Your task to perform on an android device: all mails in gmail Image 0: 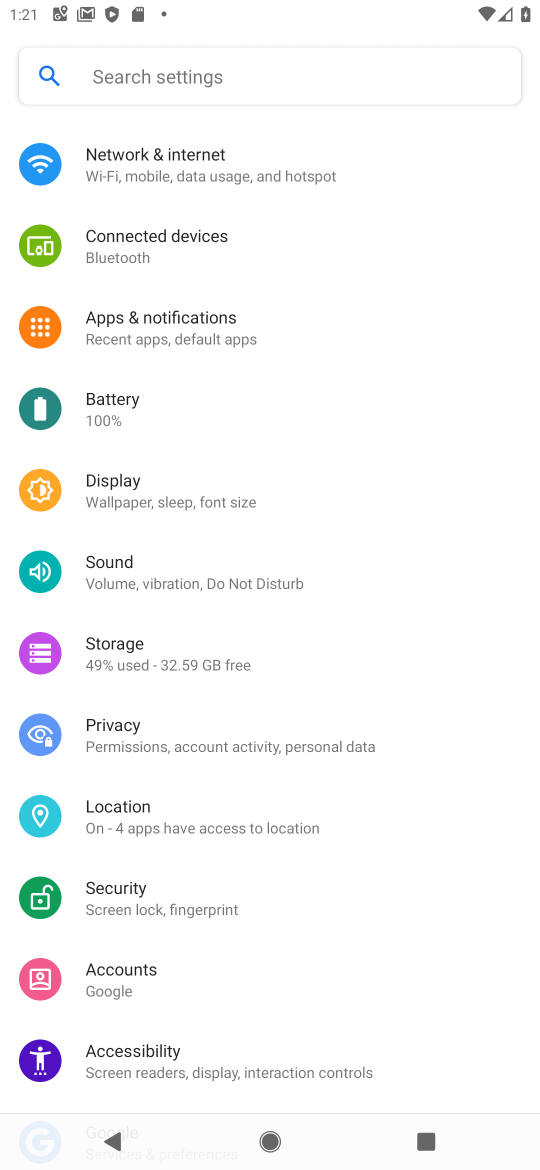
Step 0: drag from (223, 923) to (285, 97)
Your task to perform on an android device: all mails in gmail Image 1: 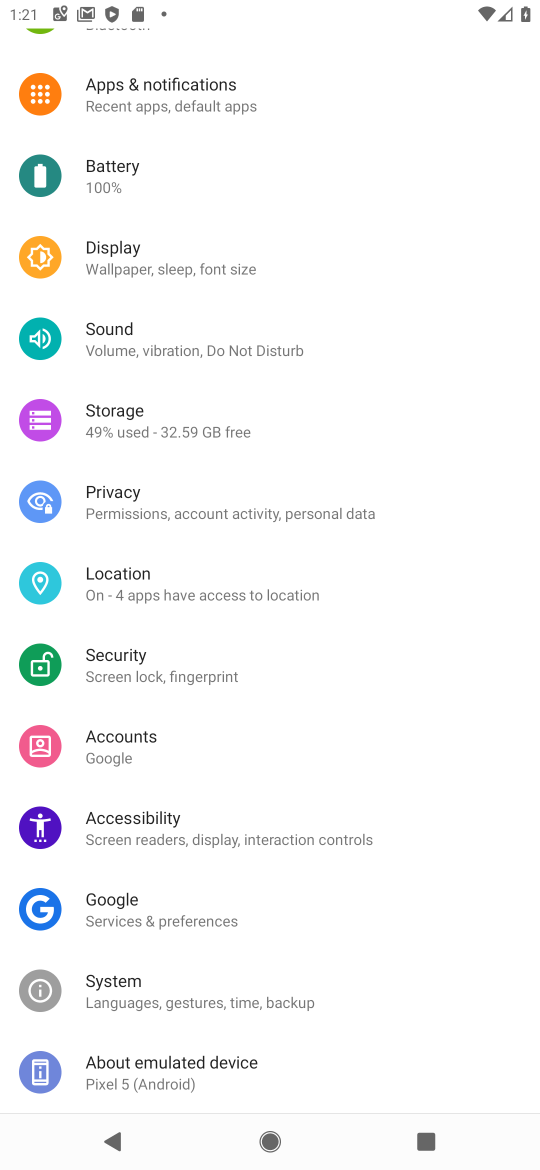
Step 1: press home button
Your task to perform on an android device: all mails in gmail Image 2: 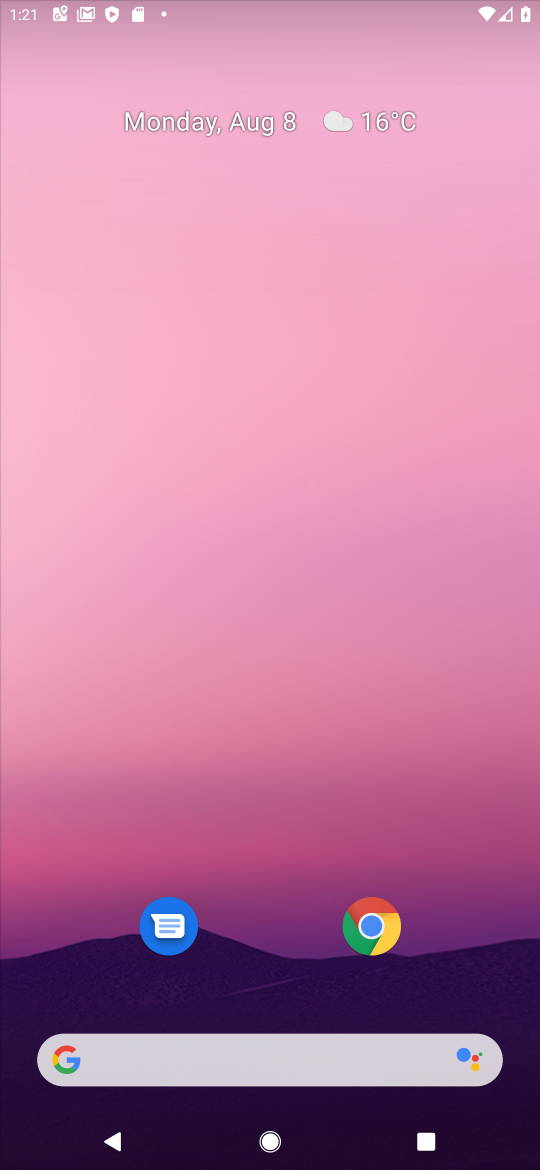
Step 2: drag from (195, 967) to (259, 47)
Your task to perform on an android device: all mails in gmail Image 3: 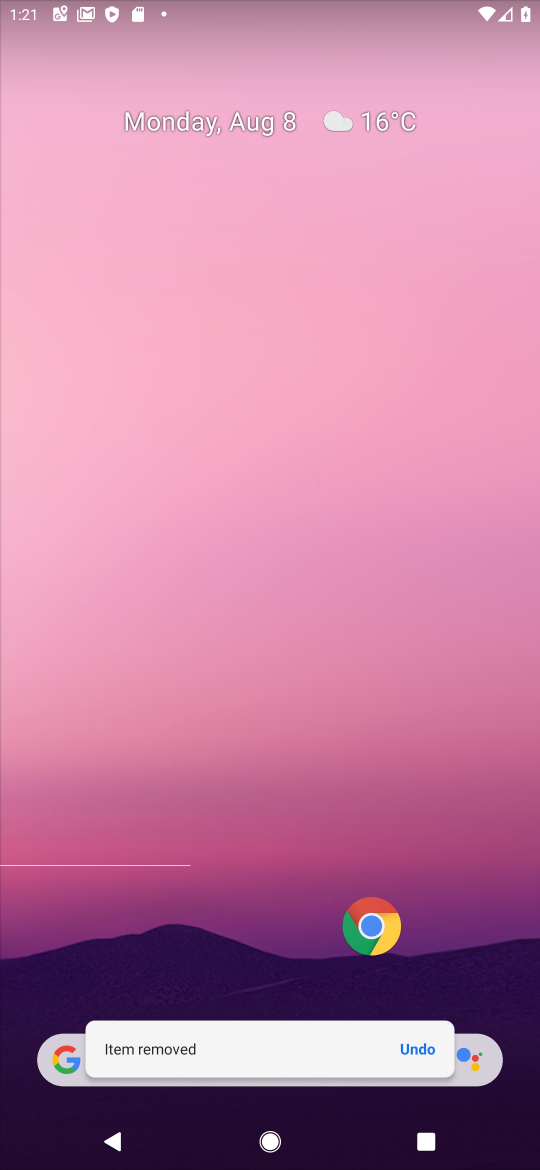
Step 3: click (464, 750)
Your task to perform on an android device: all mails in gmail Image 4: 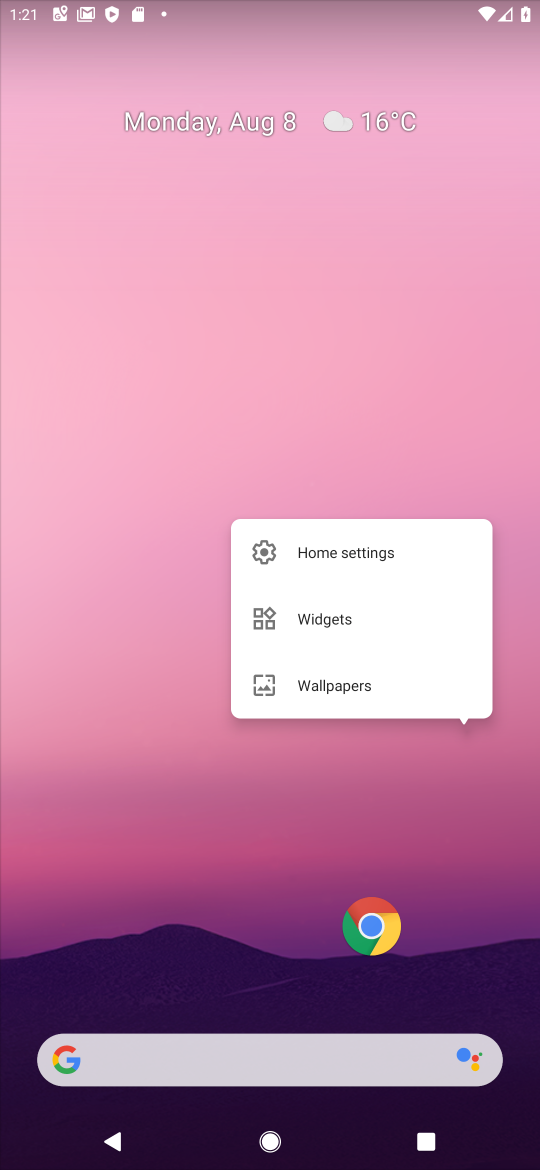
Step 4: drag from (243, 995) to (198, 164)
Your task to perform on an android device: all mails in gmail Image 5: 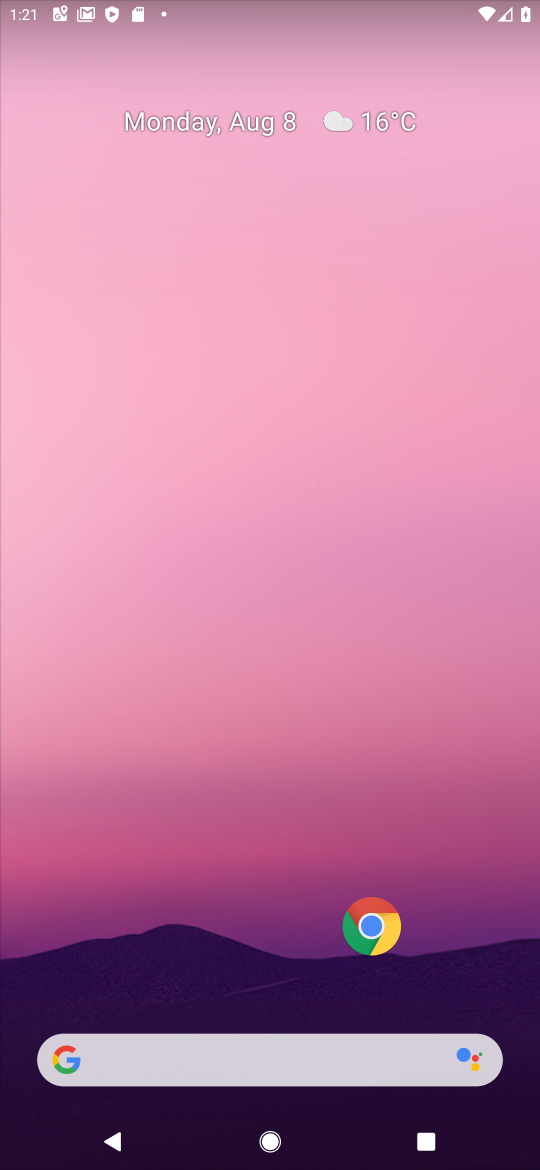
Step 5: drag from (184, 1016) to (178, 101)
Your task to perform on an android device: all mails in gmail Image 6: 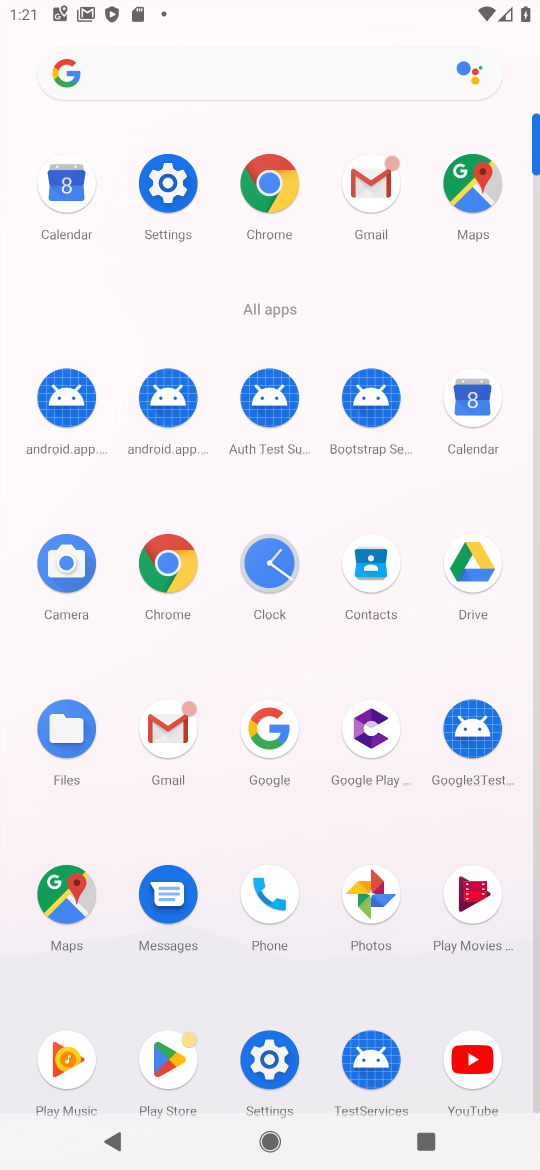
Step 6: click (364, 175)
Your task to perform on an android device: all mails in gmail Image 7: 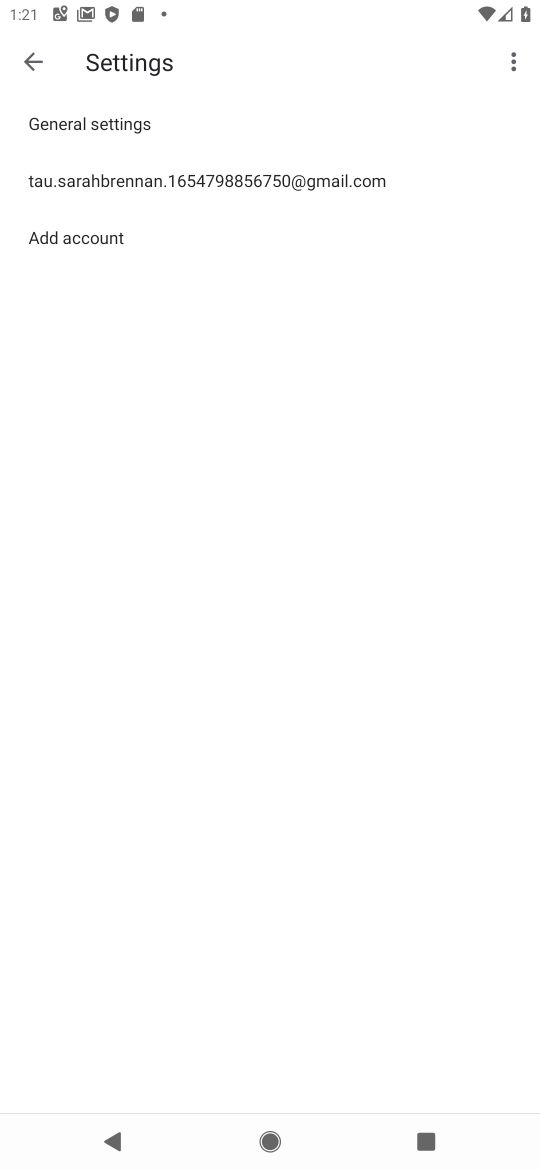
Step 7: click (97, 178)
Your task to perform on an android device: all mails in gmail Image 8: 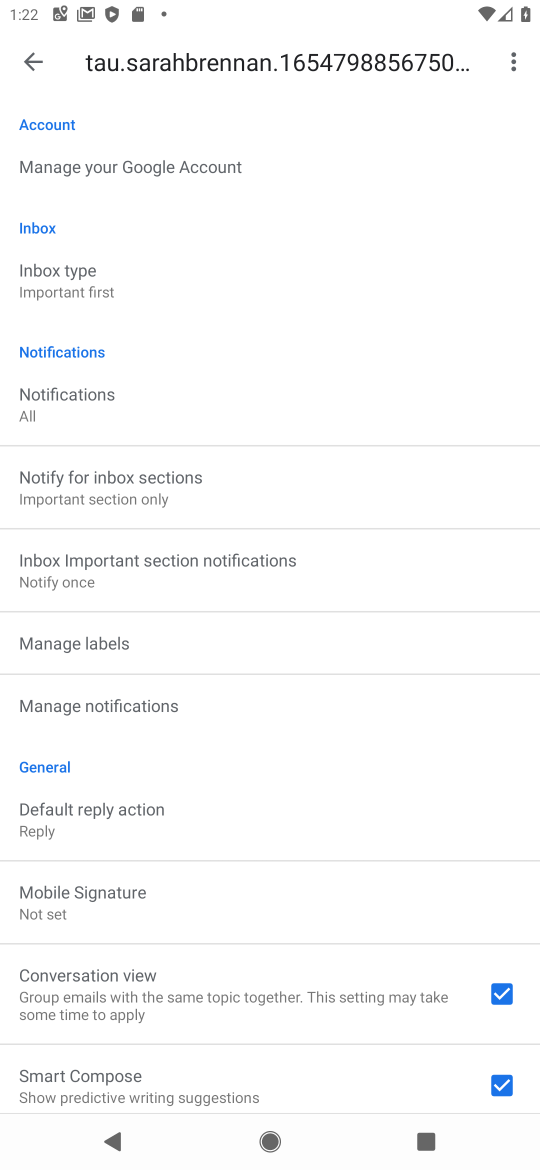
Step 8: click (19, 58)
Your task to perform on an android device: all mails in gmail Image 9: 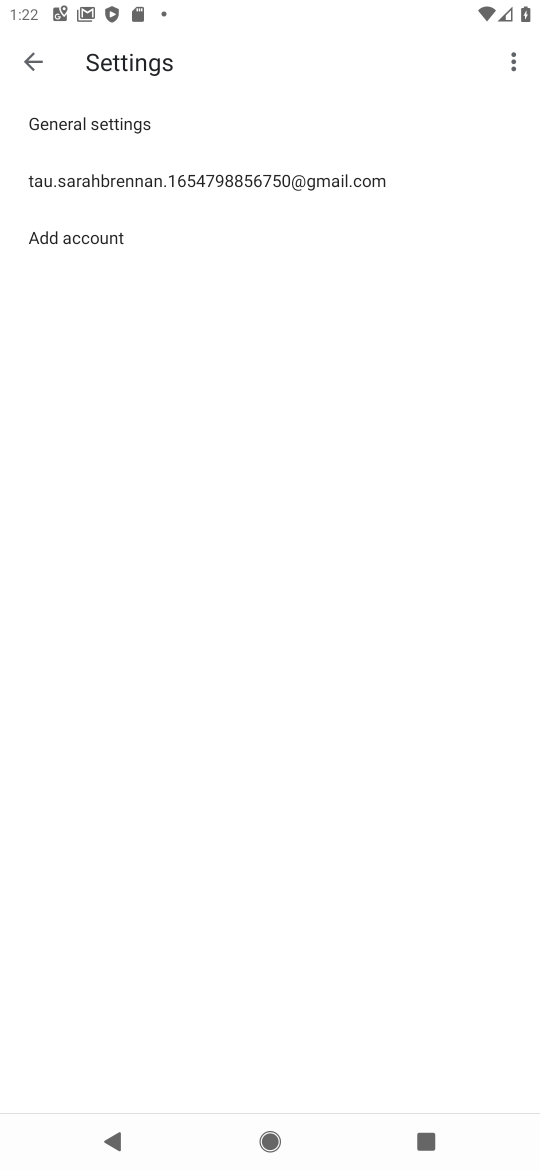
Step 9: click (19, 58)
Your task to perform on an android device: all mails in gmail Image 10: 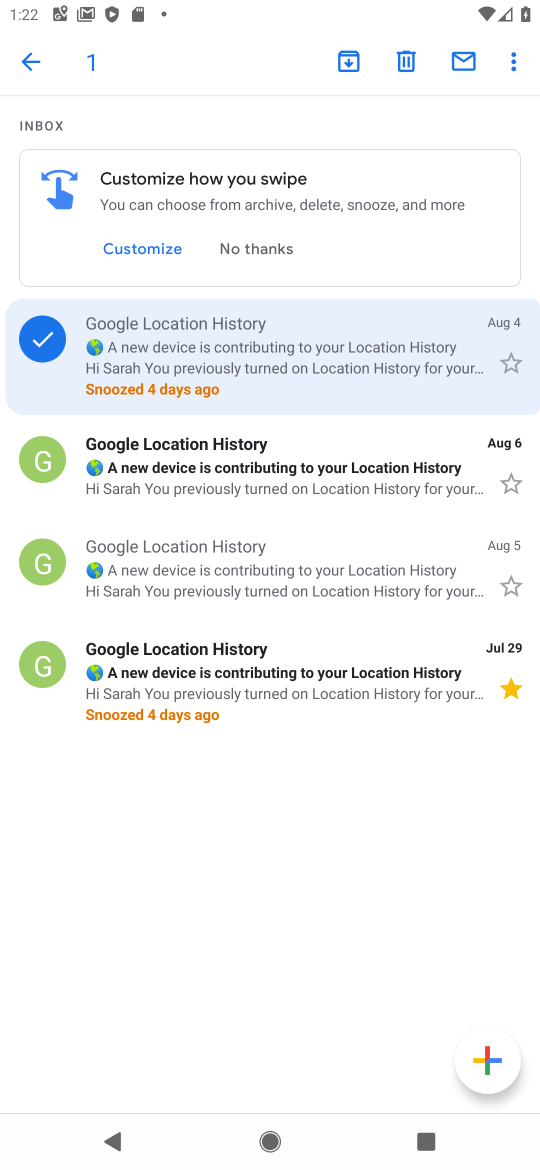
Step 10: click (42, 52)
Your task to perform on an android device: all mails in gmail Image 11: 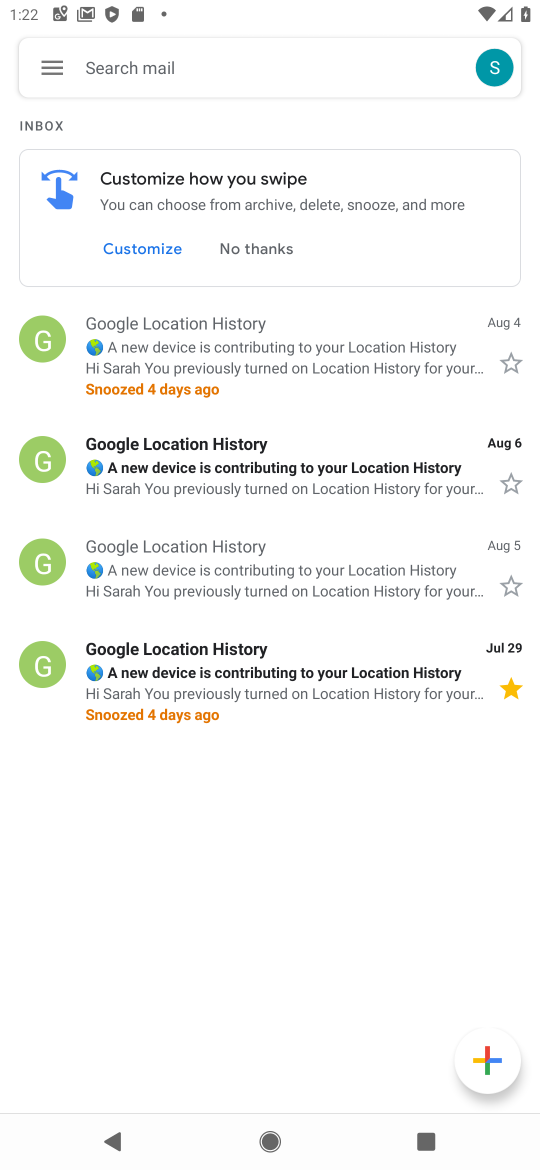
Step 11: click (57, 63)
Your task to perform on an android device: all mails in gmail Image 12: 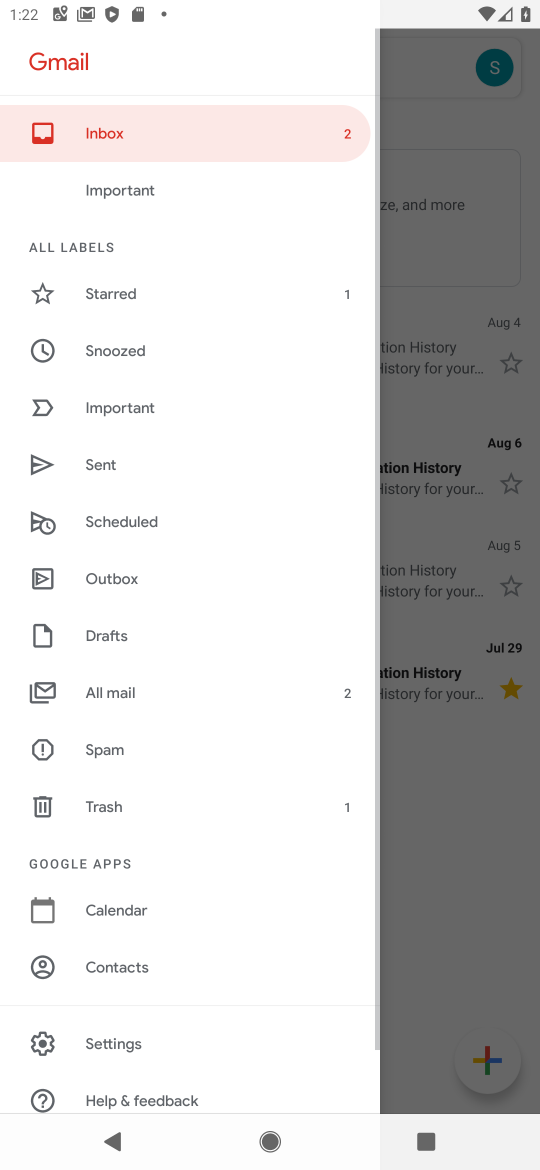
Step 12: click (108, 684)
Your task to perform on an android device: all mails in gmail Image 13: 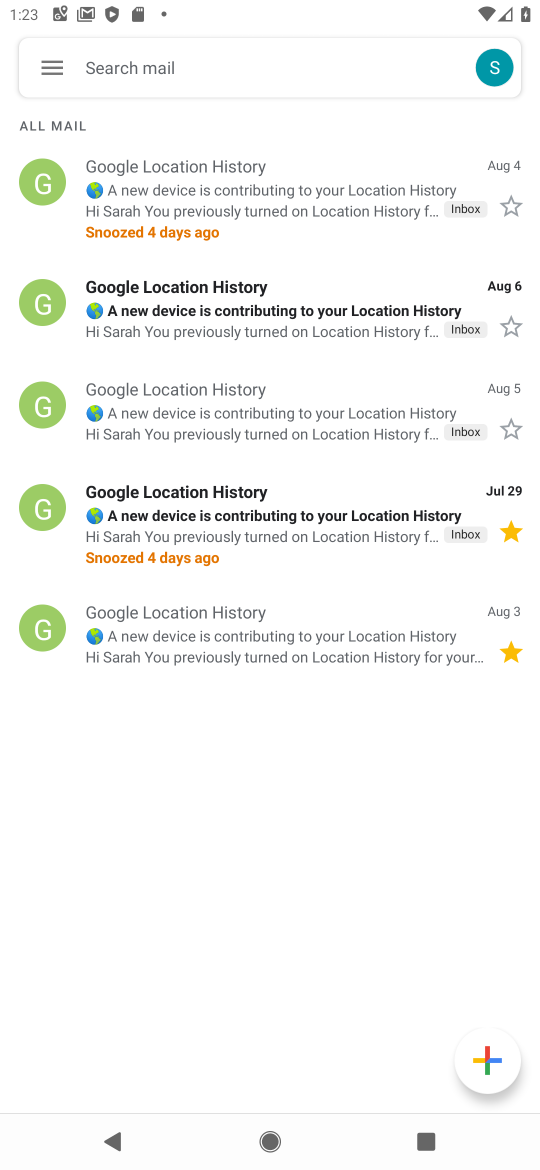
Step 13: task complete